Your task to perform on an android device: Open display settings Image 0: 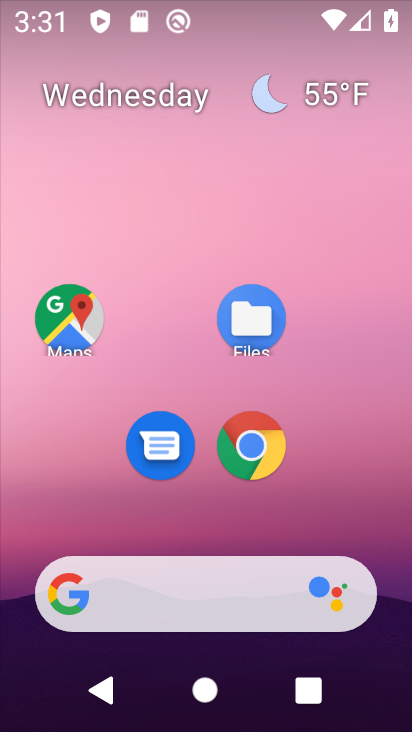
Step 0: drag from (314, 489) to (261, 21)
Your task to perform on an android device: Open display settings Image 1: 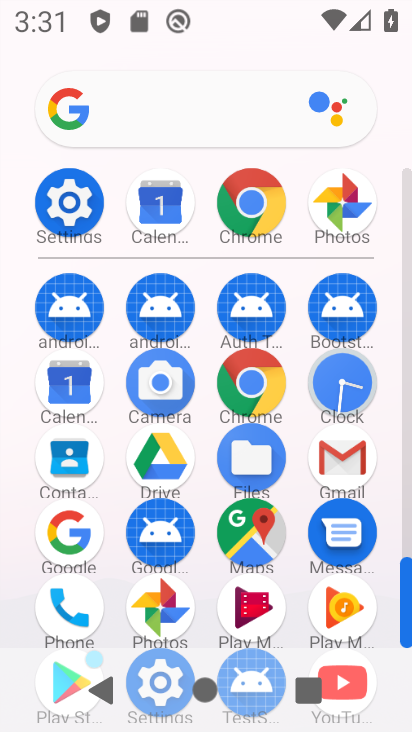
Step 1: click (58, 194)
Your task to perform on an android device: Open display settings Image 2: 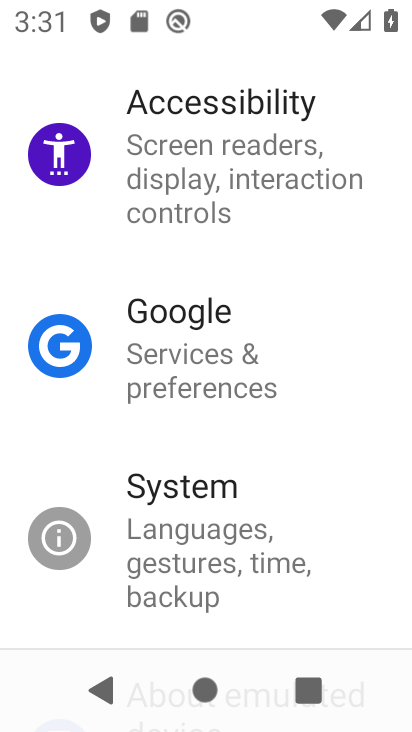
Step 2: drag from (257, 191) to (247, 711)
Your task to perform on an android device: Open display settings Image 3: 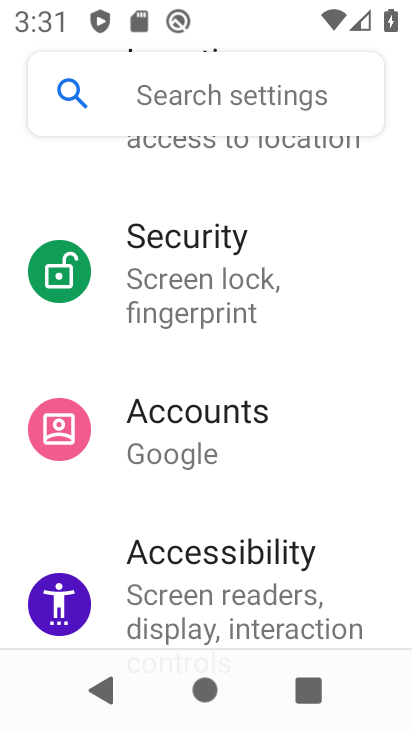
Step 3: drag from (237, 341) to (225, 703)
Your task to perform on an android device: Open display settings Image 4: 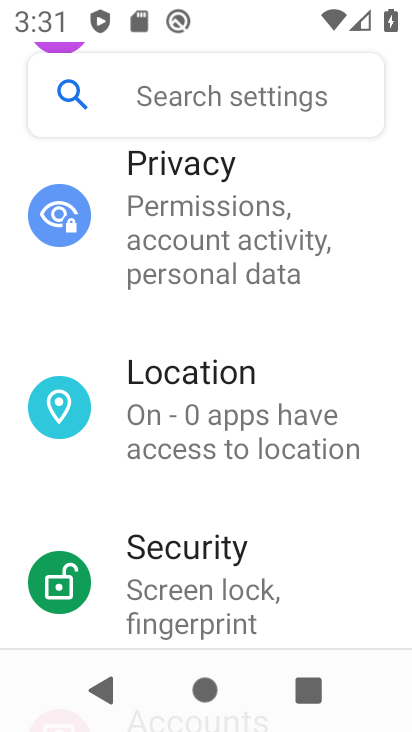
Step 4: drag from (190, 207) to (222, 520)
Your task to perform on an android device: Open display settings Image 5: 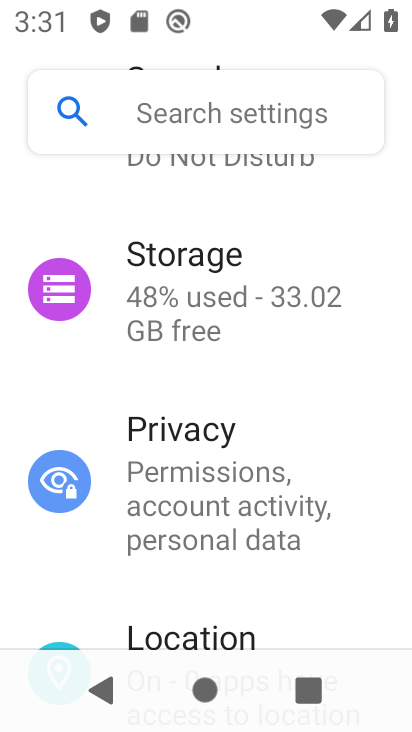
Step 5: drag from (169, 237) to (200, 655)
Your task to perform on an android device: Open display settings Image 6: 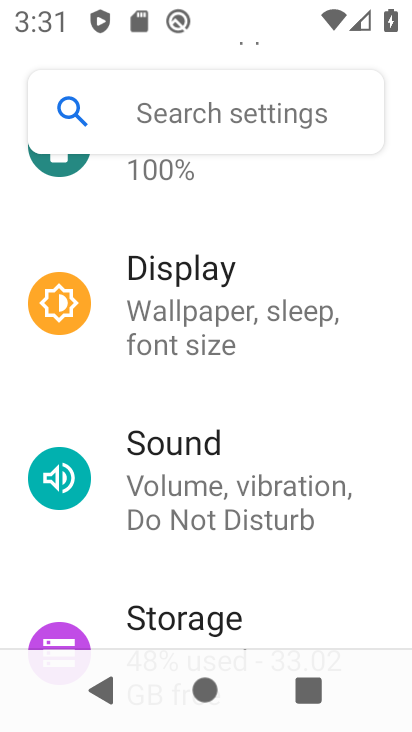
Step 6: click (207, 270)
Your task to perform on an android device: Open display settings Image 7: 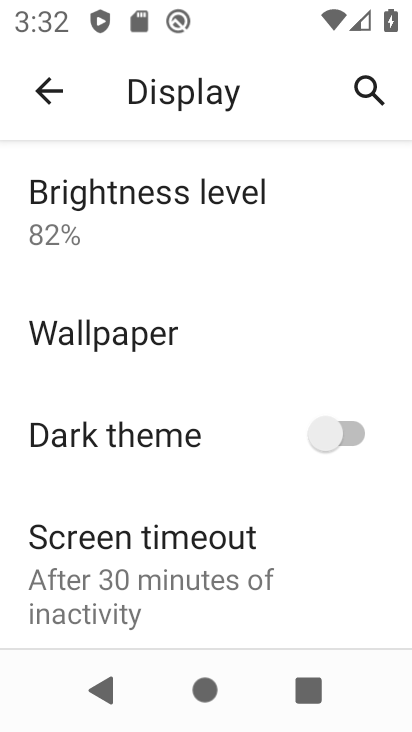
Step 7: task complete